Your task to perform on an android device: set default search engine in the chrome app Image 0: 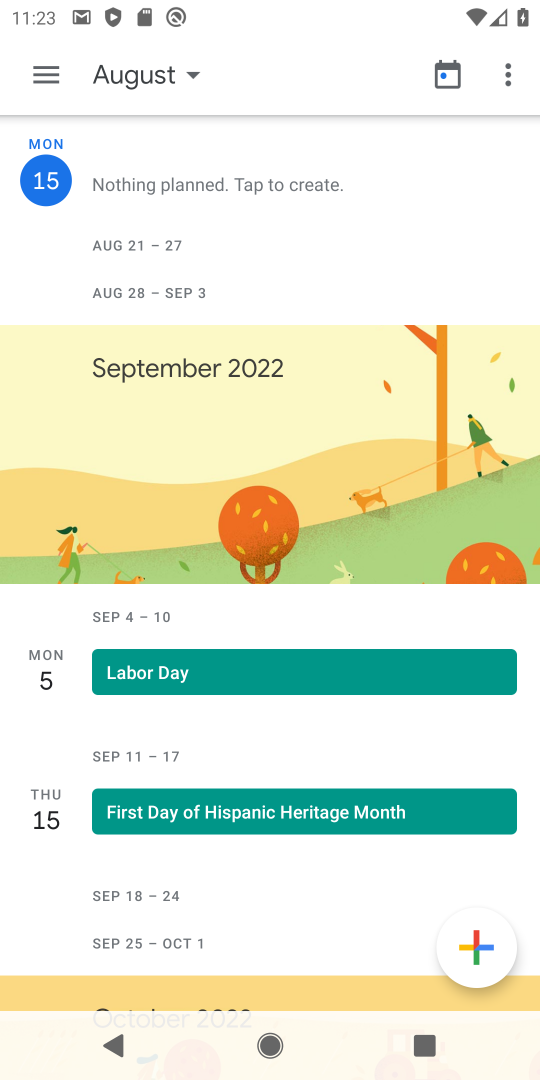
Step 0: press home button
Your task to perform on an android device: set default search engine in the chrome app Image 1: 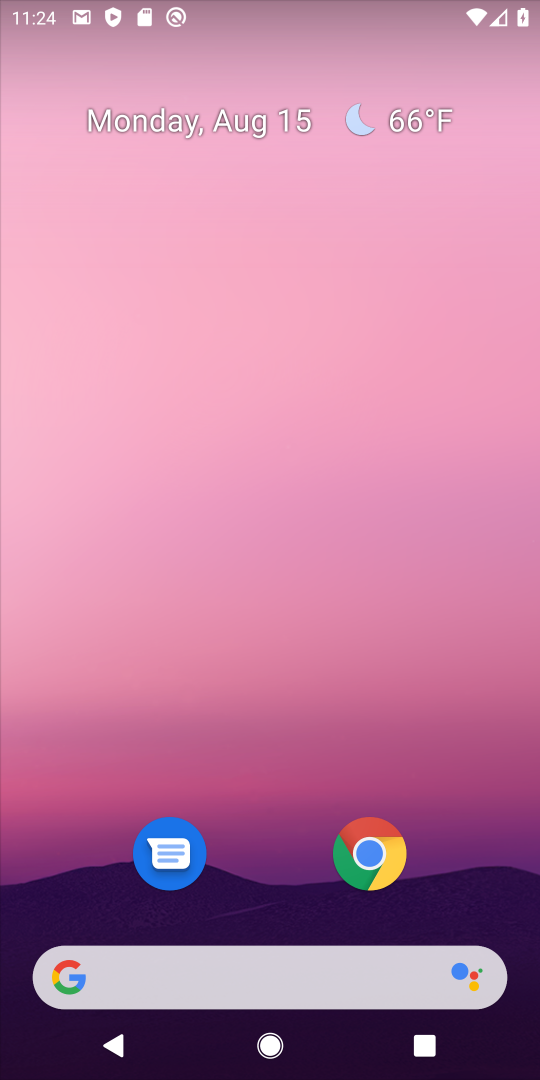
Step 1: drag from (292, 522) to (329, 37)
Your task to perform on an android device: set default search engine in the chrome app Image 2: 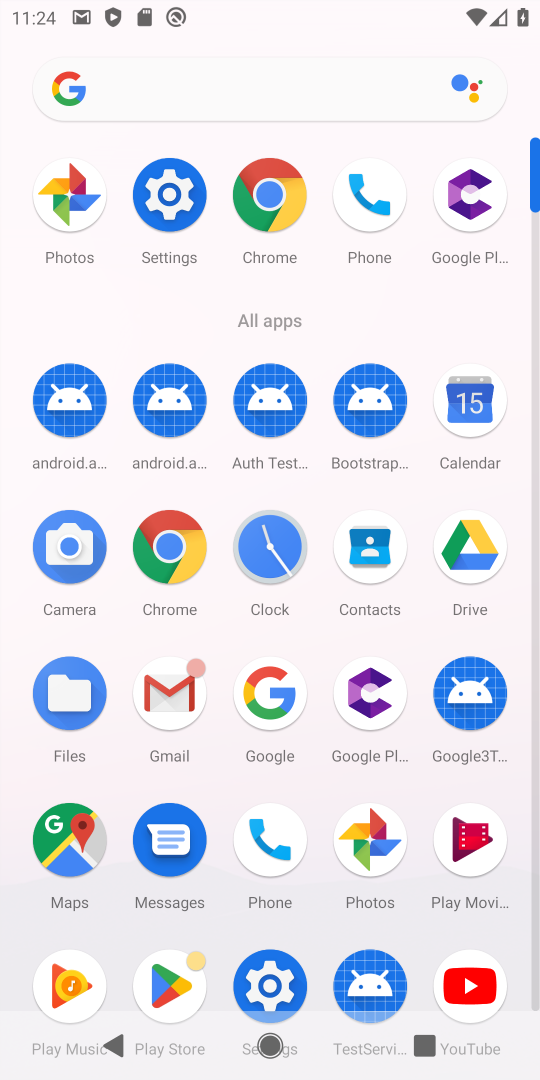
Step 2: click (273, 188)
Your task to perform on an android device: set default search engine in the chrome app Image 3: 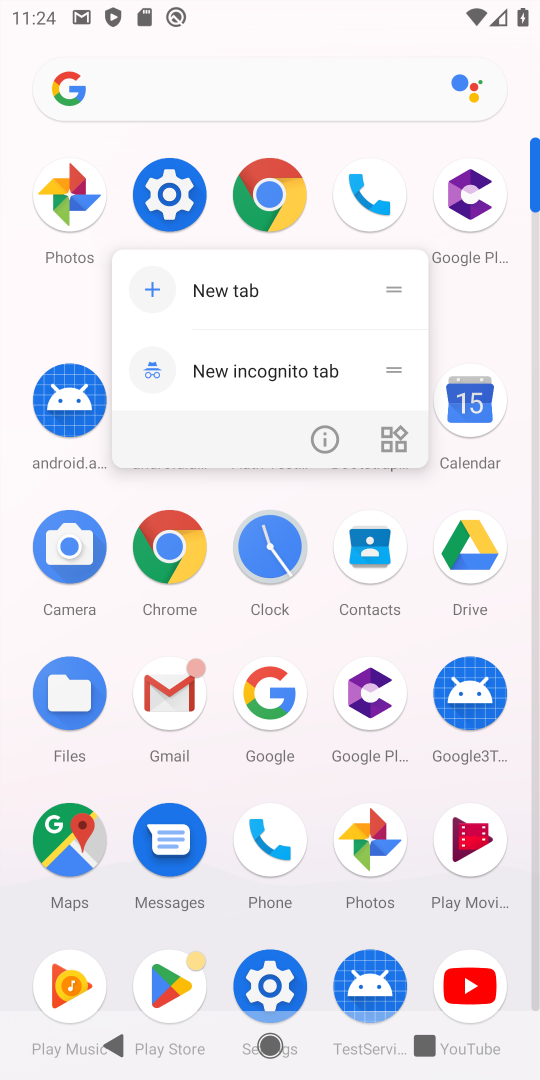
Step 3: click (265, 191)
Your task to perform on an android device: set default search engine in the chrome app Image 4: 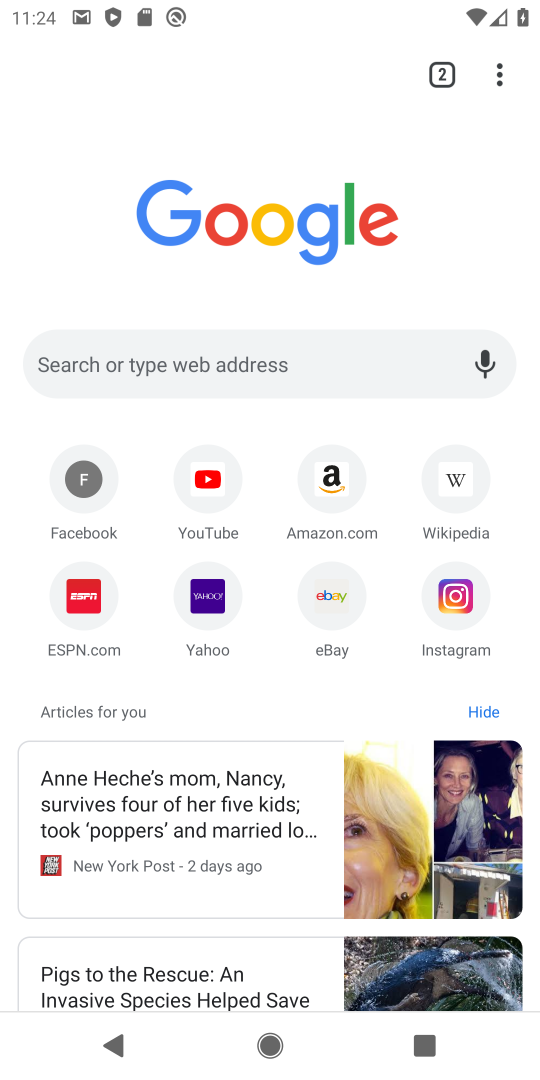
Step 4: click (498, 73)
Your task to perform on an android device: set default search engine in the chrome app Image 5: 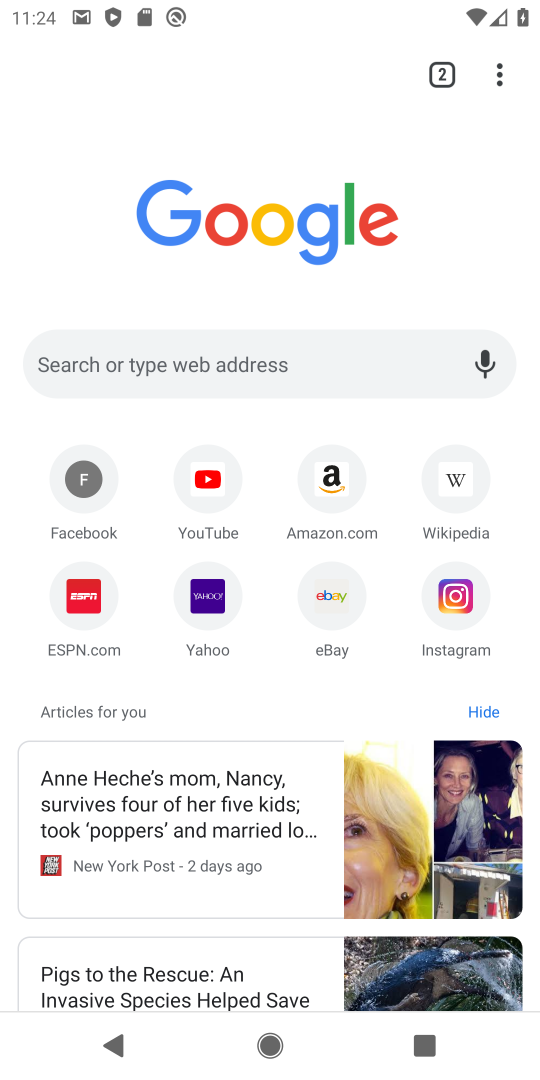
Step 5: click (492, 84)
Your task to perform on an android device: set default search engine in the chrome app Image 6: 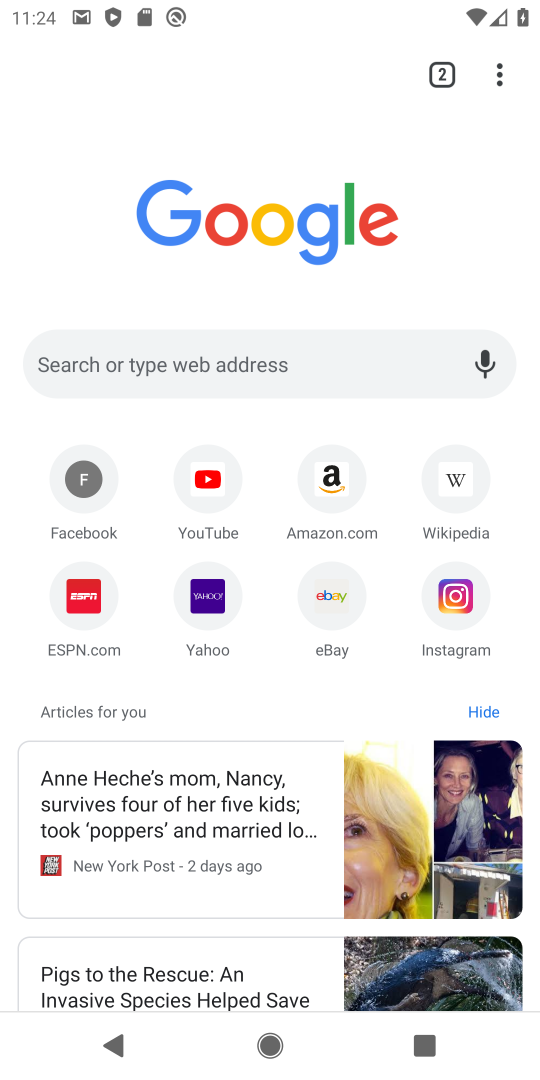
Step 6: click (503, 79)
Your task to perform on an android device: set default search engine in the chrome app Image 7: 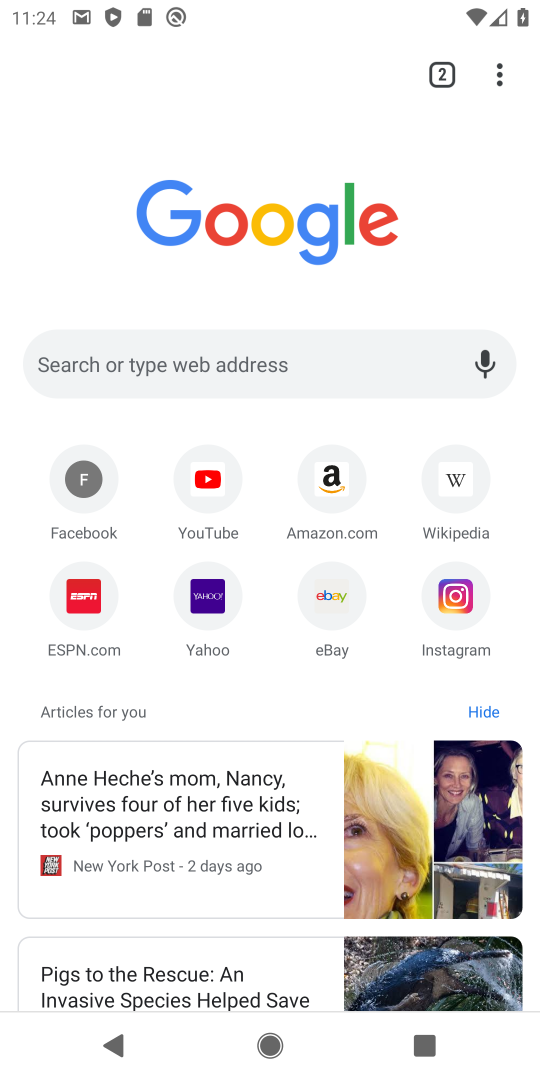
Step 7: click (488, 75)
Your task to perform on an android device: set default search engine in the chrome app Image 8: 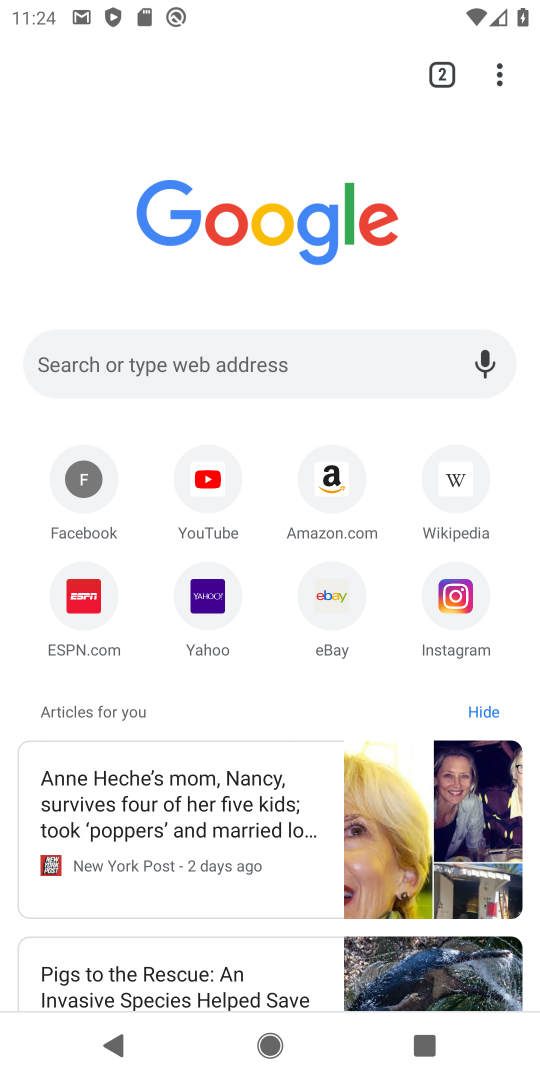
Step 8: click (497, 75)
Your task to perform on an android device: set default search engine in the chrome app Image 9: 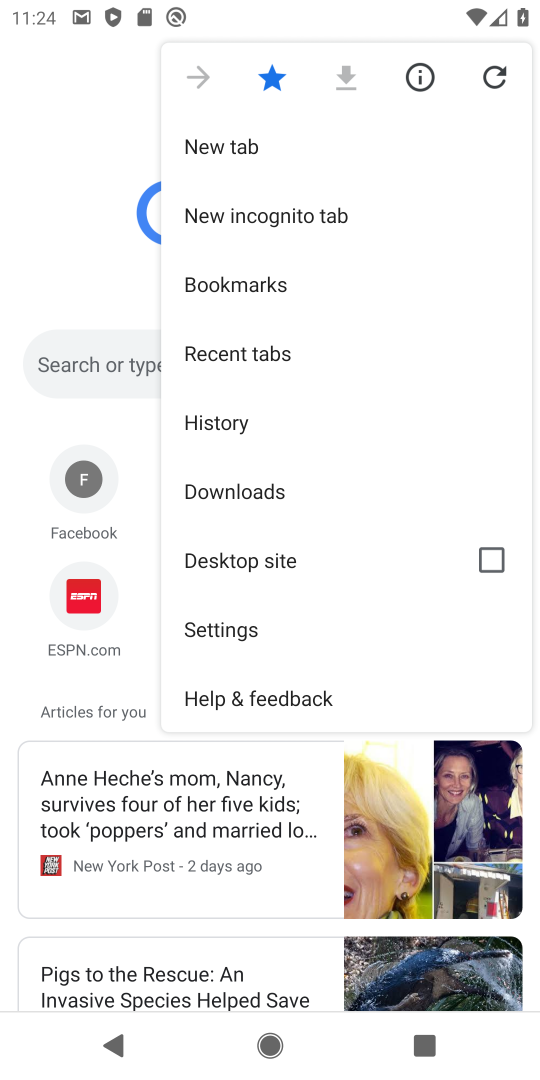
Step 9: click (218, 623)
Your task to perform on an android device: set default search engine in the chrome app Image 10: 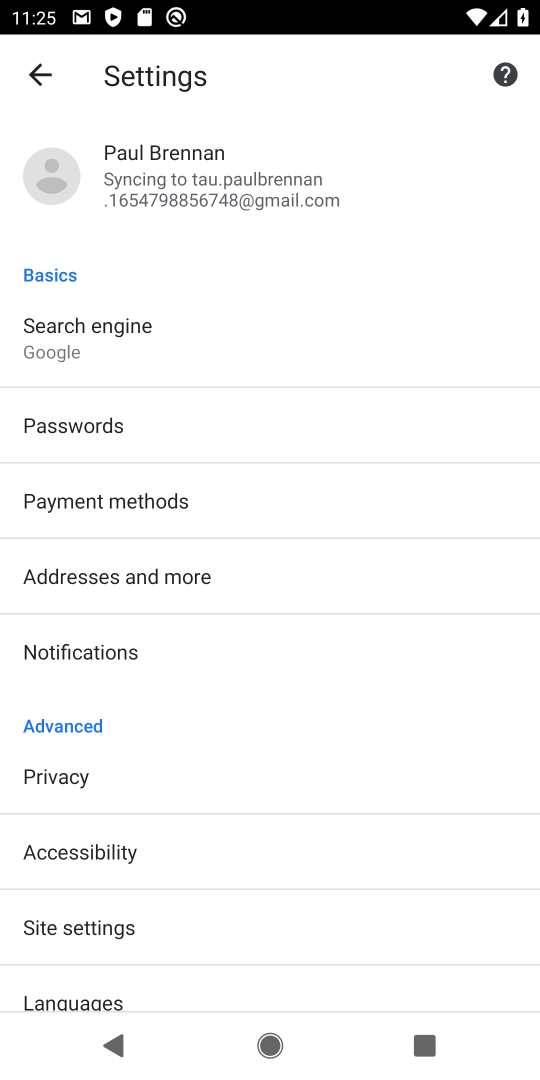
Step 10: click (90, 352)
Your task to perform on an android device: set default search engine in the chrome app Image 11: 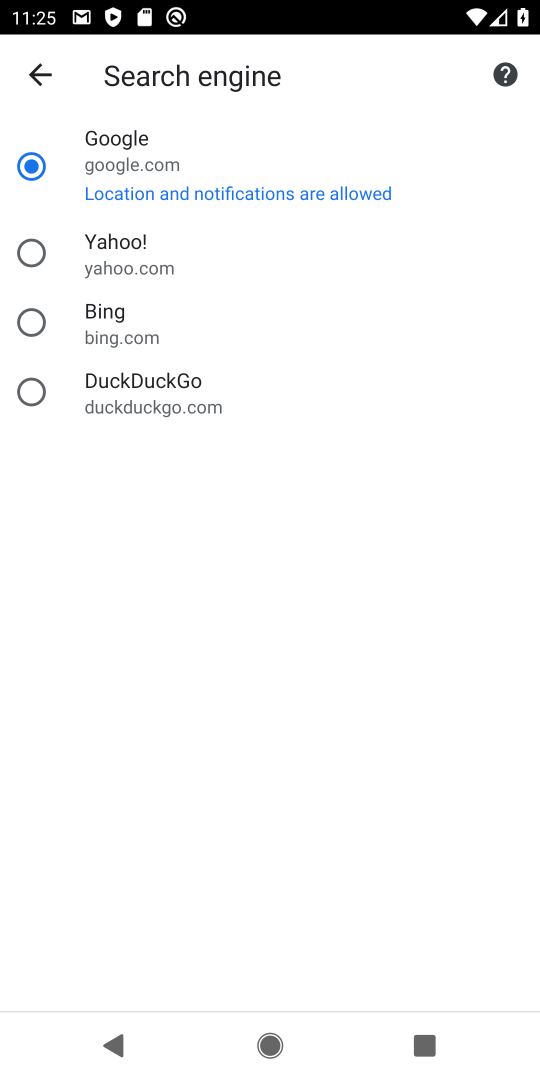
Step 11: task complete